Your task to perform on an android device: turn smart compose on in the gmail app Image 0: 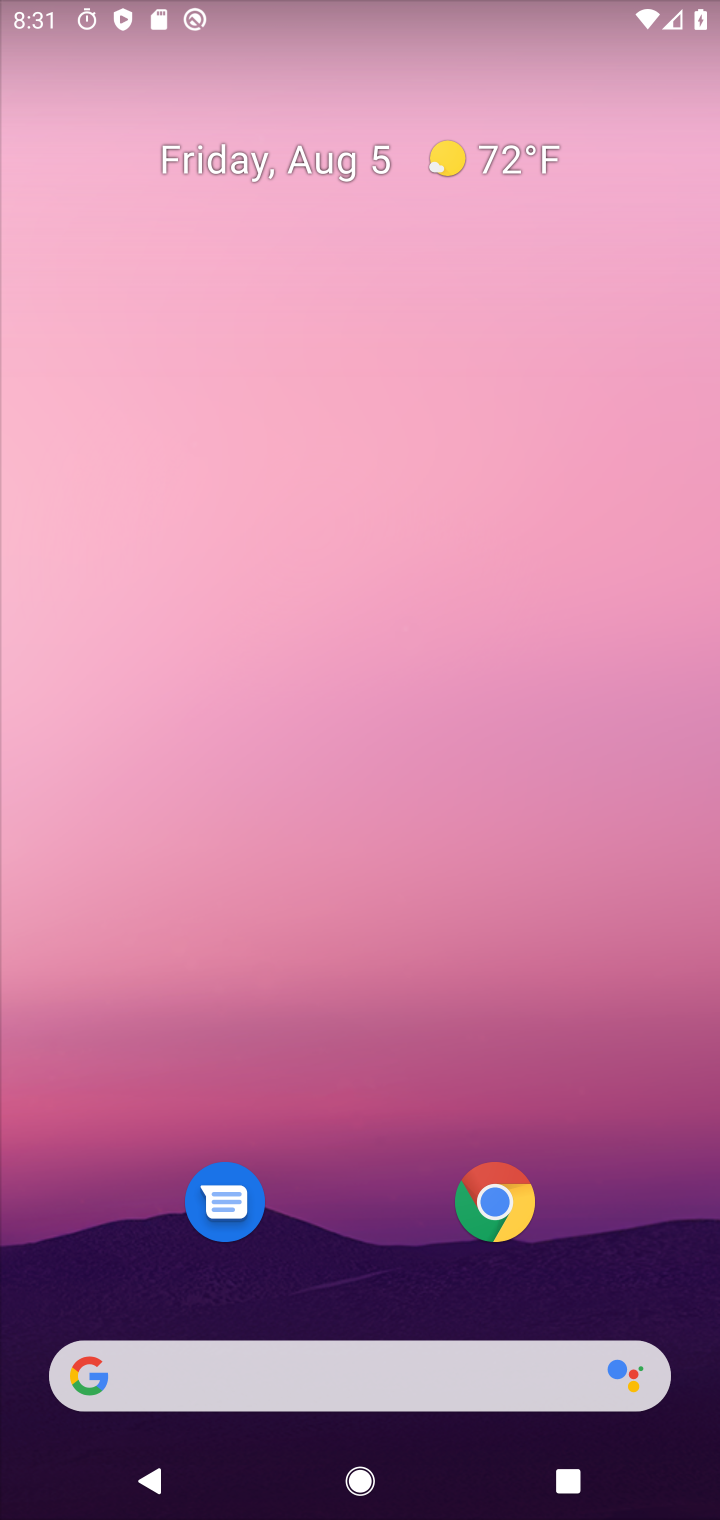
Step 0: drag from (320, 1270) to (291, 677)
Your task to perform on an android device: turn smart compose on in the gmail app Image 1: 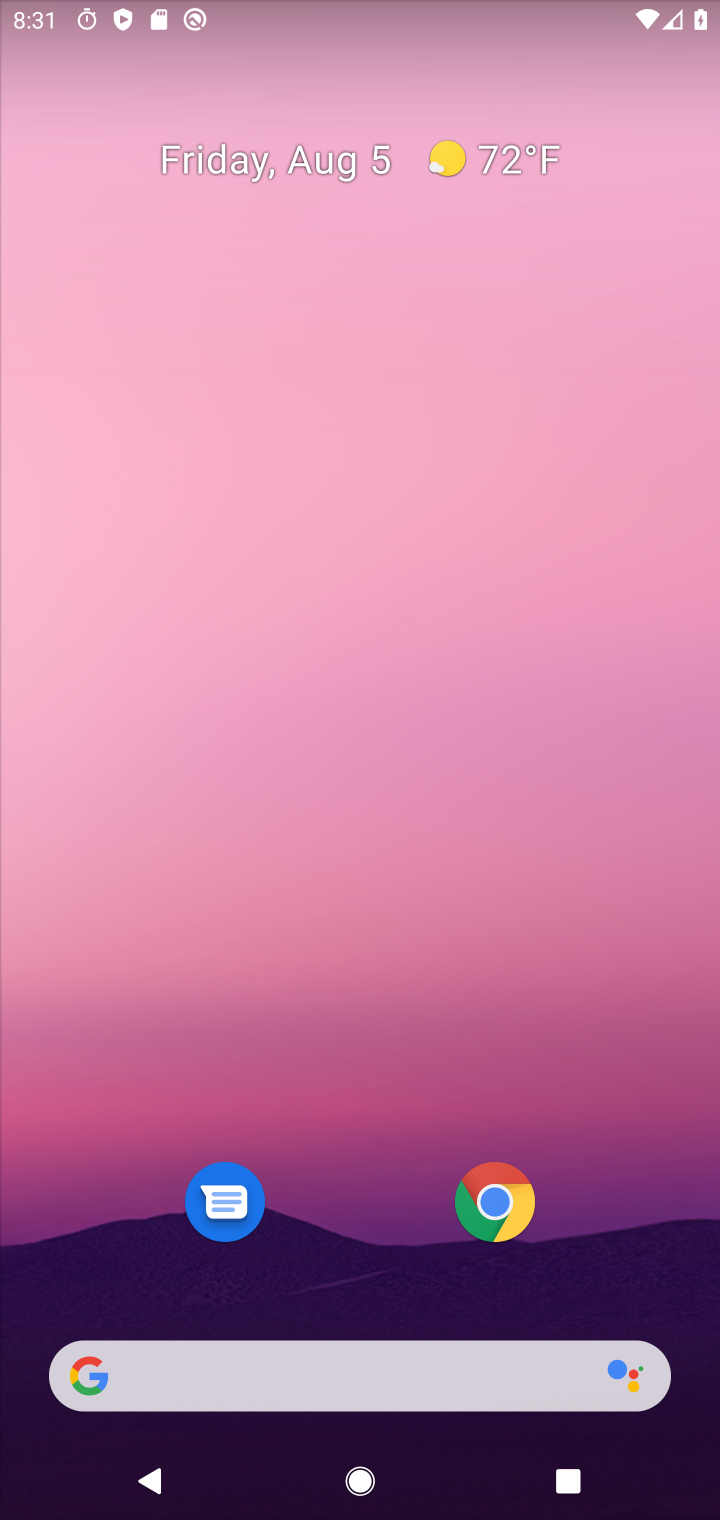
Step 1: click (343, 851)
Your task to perform on an android device: turn smart compose on in the gmail app Image 2: 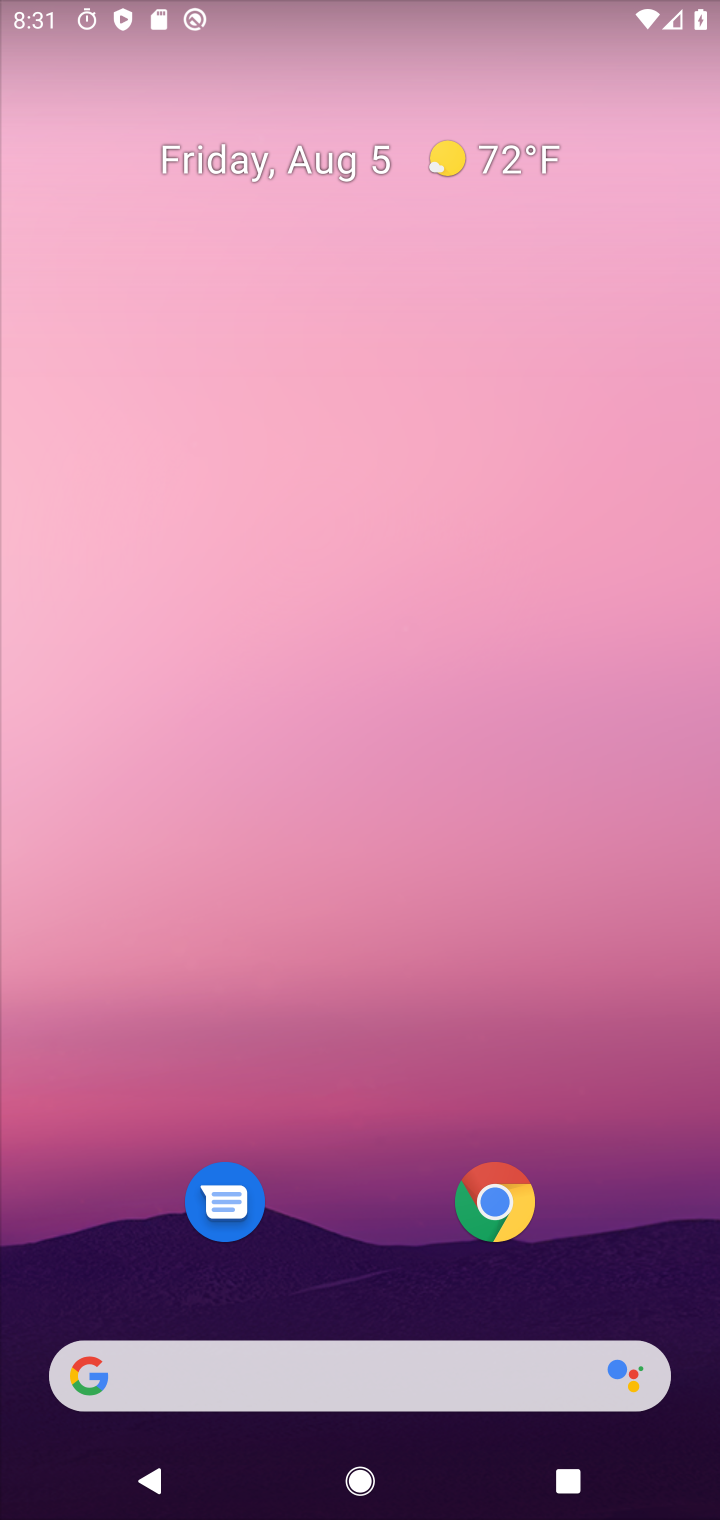
Step 2: drag from (355, 1181) to (417, 0)
Your task to perform on an android device: turn smart compose on in the gmail app Image 3: 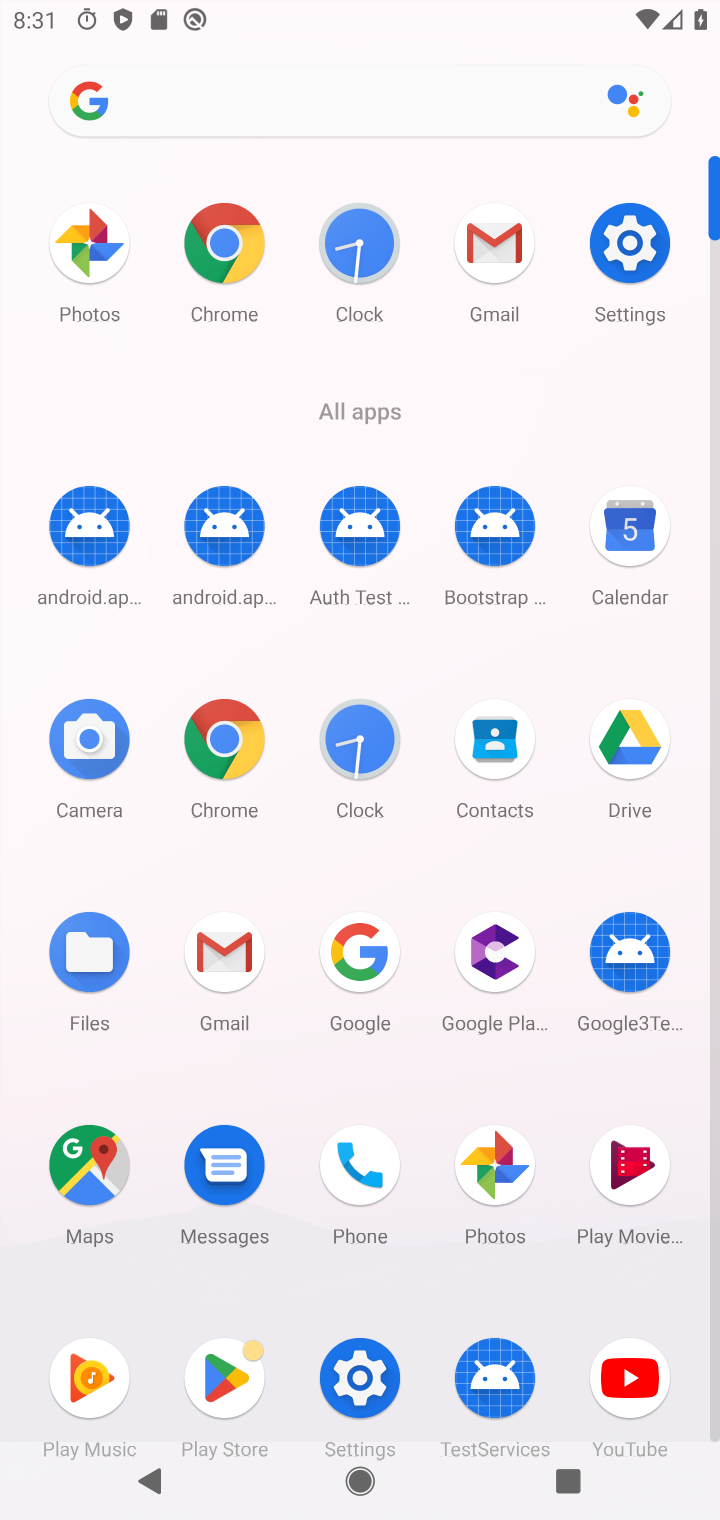
Step 3: click (491, 243)
Your task to perform on an android device: turn smart compose on in the gmail app Image 4: 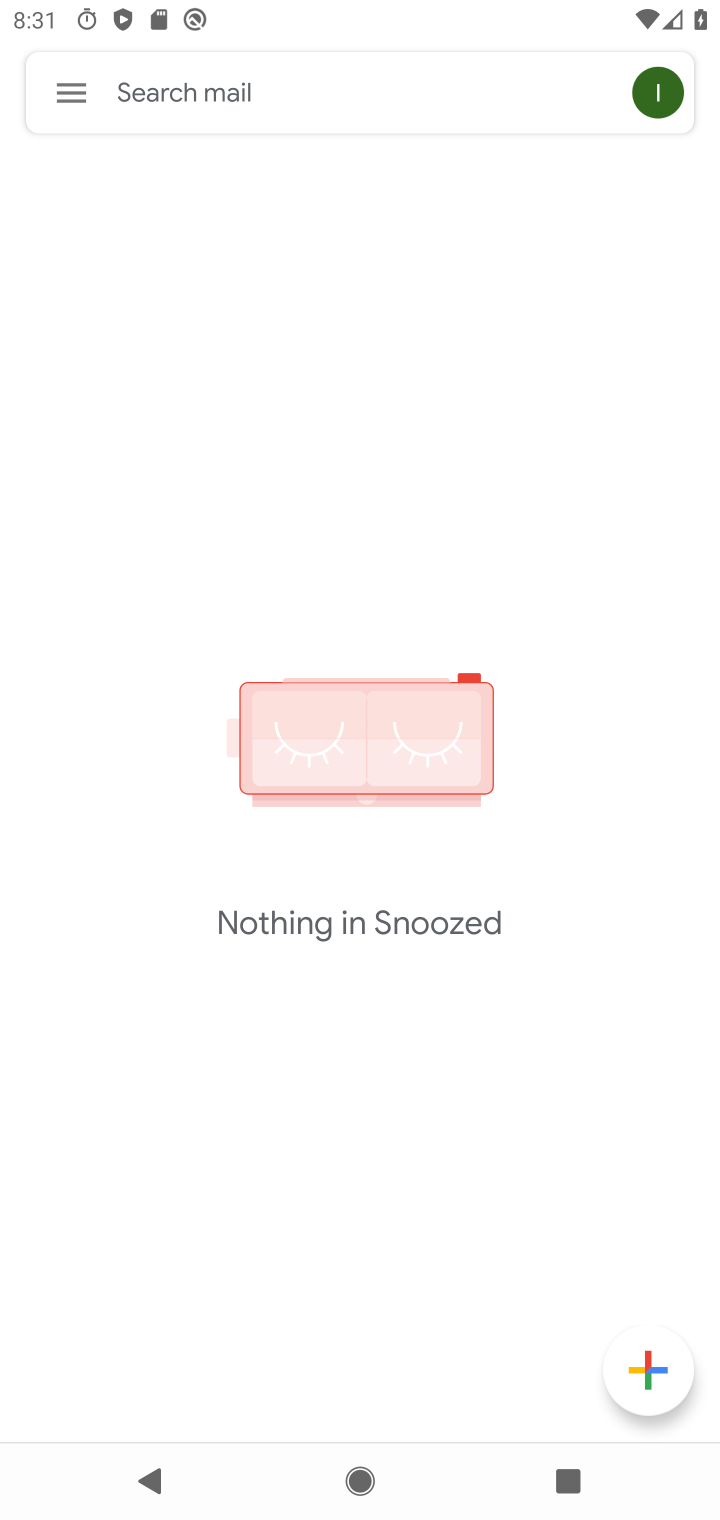
Step 4: click (65, 82)
Your task to perform on an android device: turn smart compose on in the gmail app Image 5: 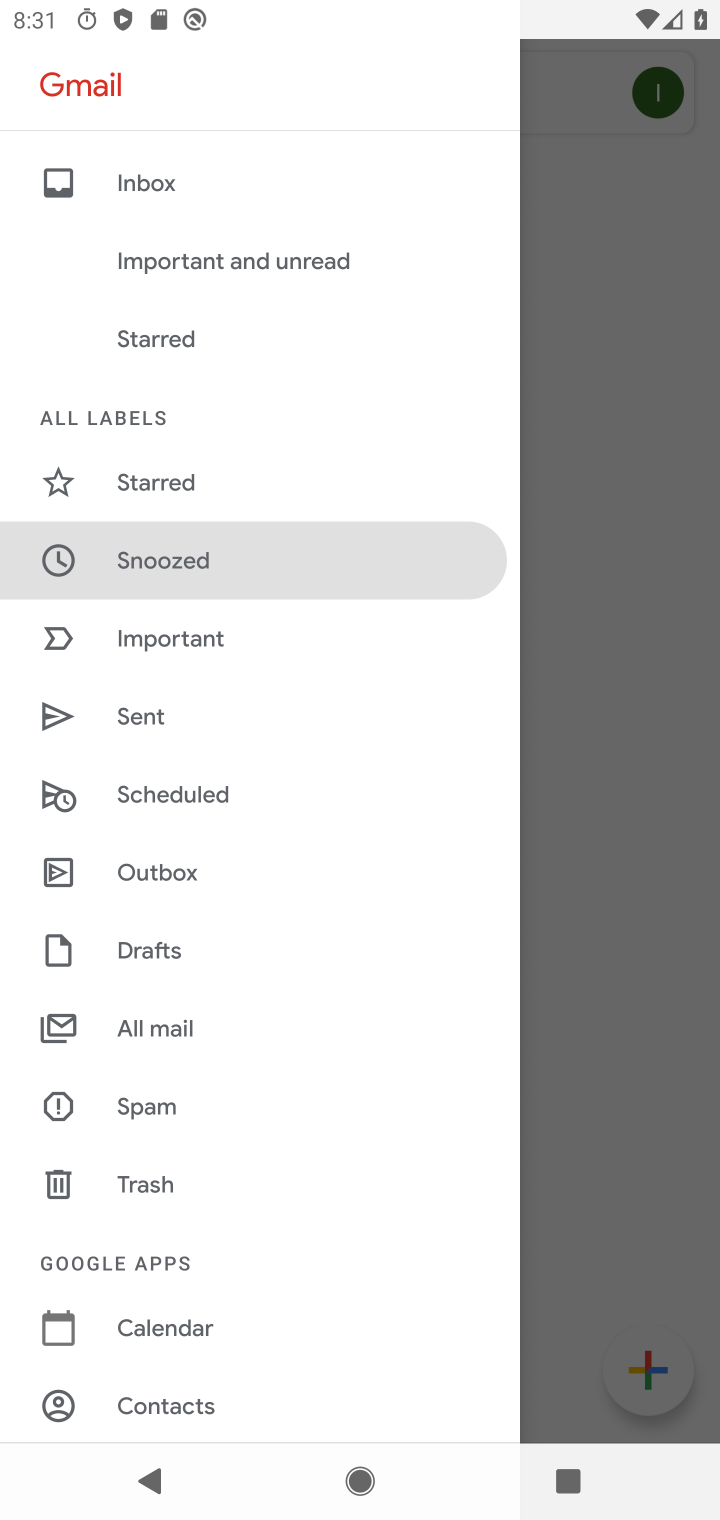
Step 5: drag from (238, 1258) to (238, 703)
Your task to perform on an android device: turn smart compose on in the gmail app Image 6: 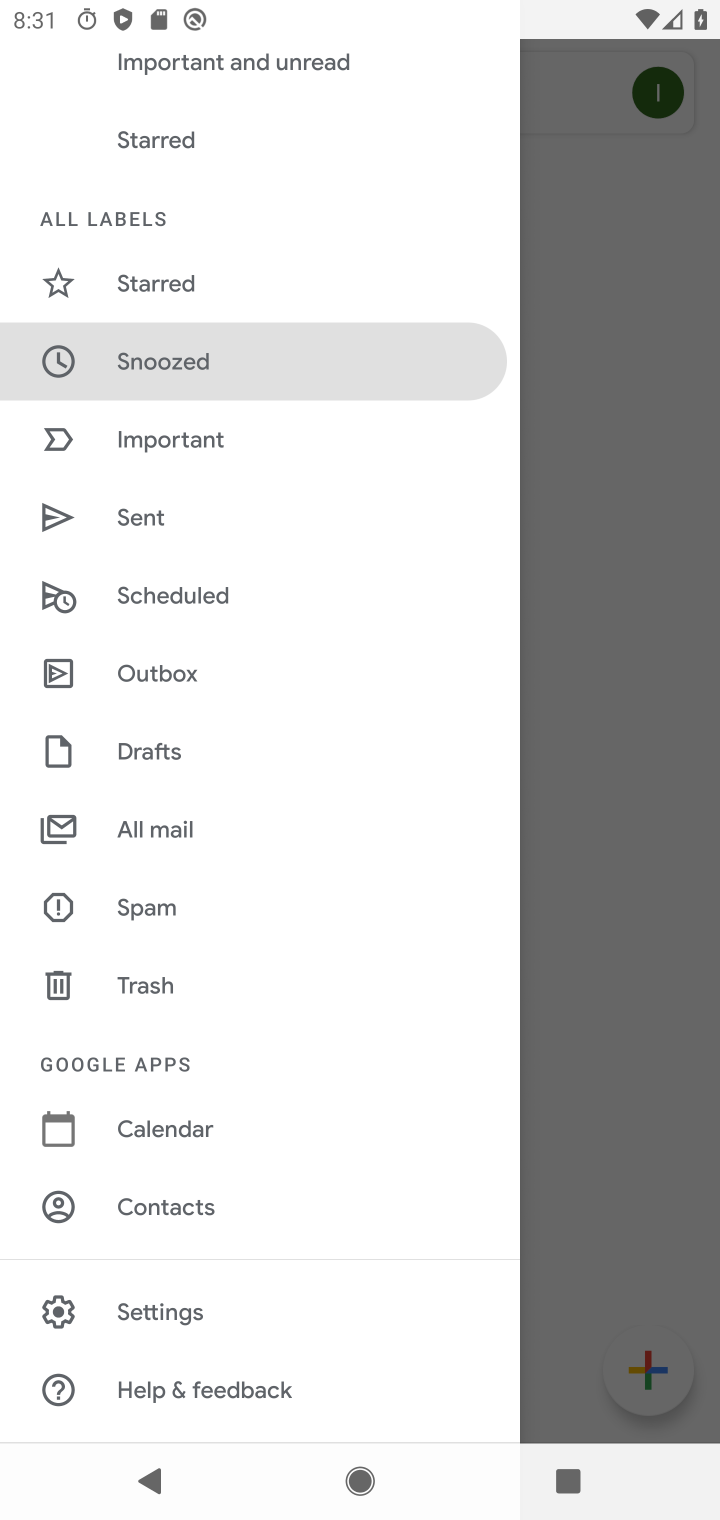
Step 6: click (181, 1300)
Your task to perform on an android device: turn smart compose on in the gmail app Image 7: 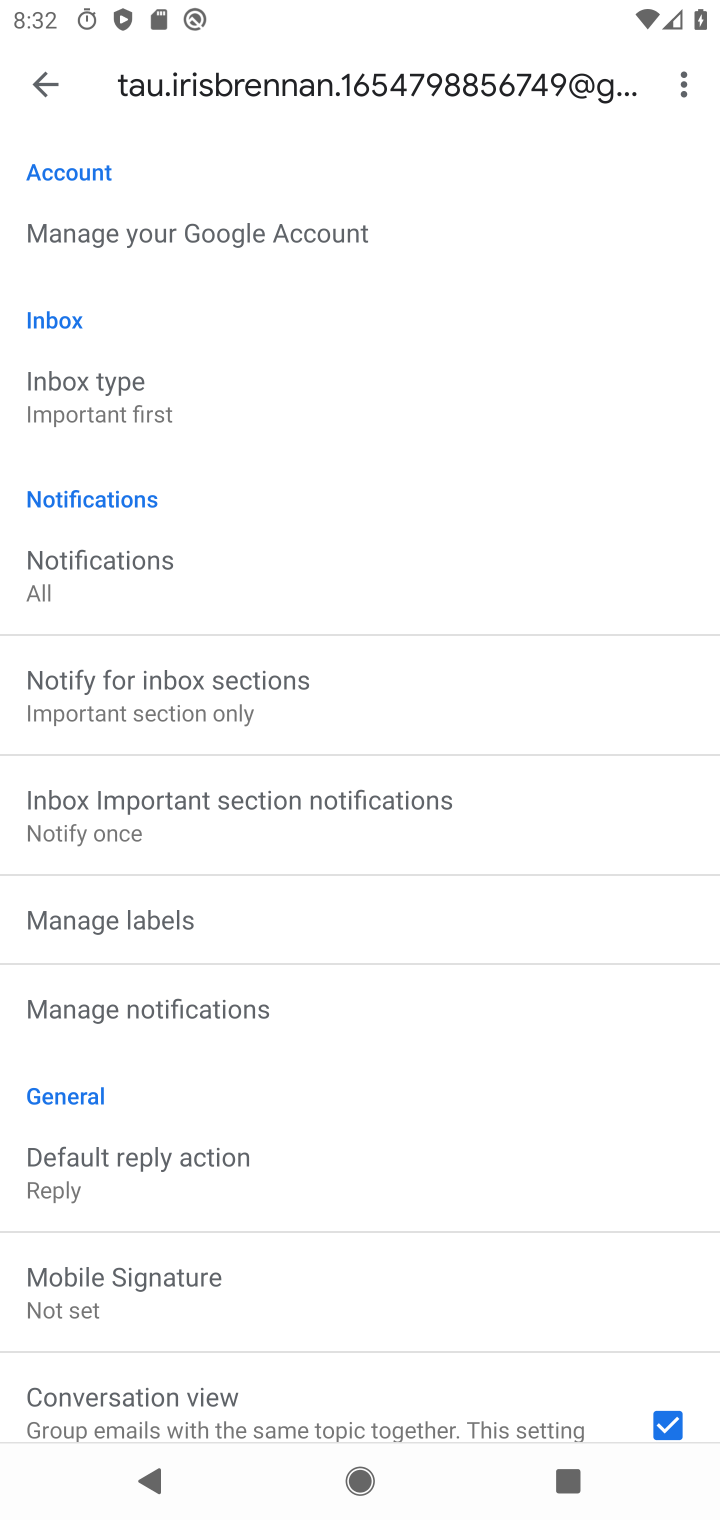
Step 7: task complete